Your task to perform on an android device: open chrome privacy settings Image 0: 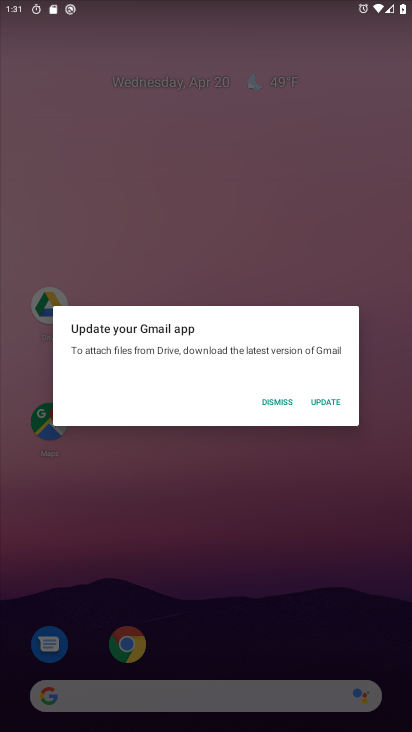
Step 0: click (285, 478)
Your task to perform on an android device: open chrome privacy settings Image 1: 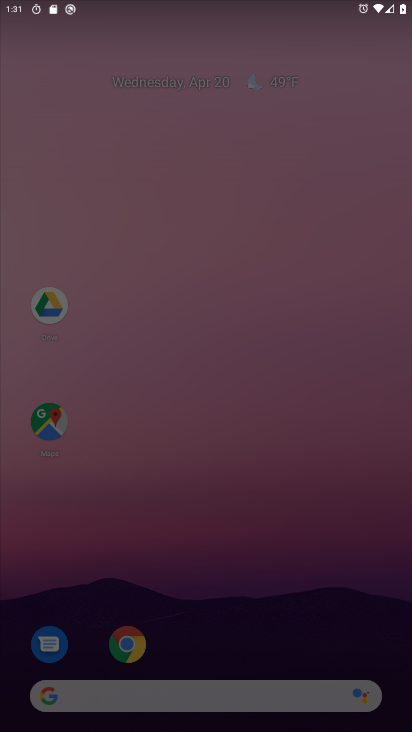
Step 1: click (137, 648)
Your task to perform on an android device: open chrome privacy settings Image 2: 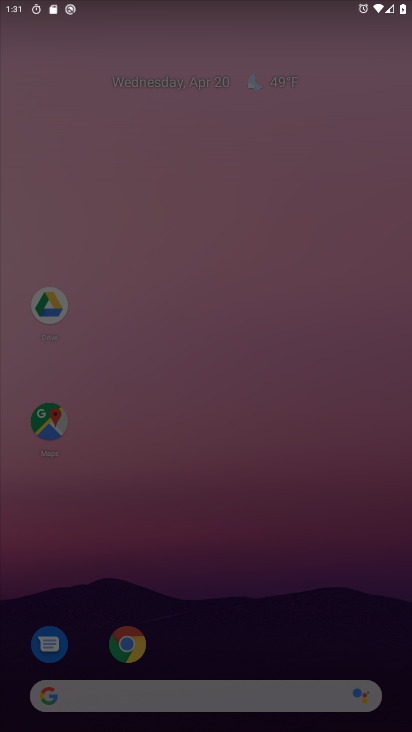
Step 2: press home button
Your task to perform on an android device: open chrome privacy settings Image 3: 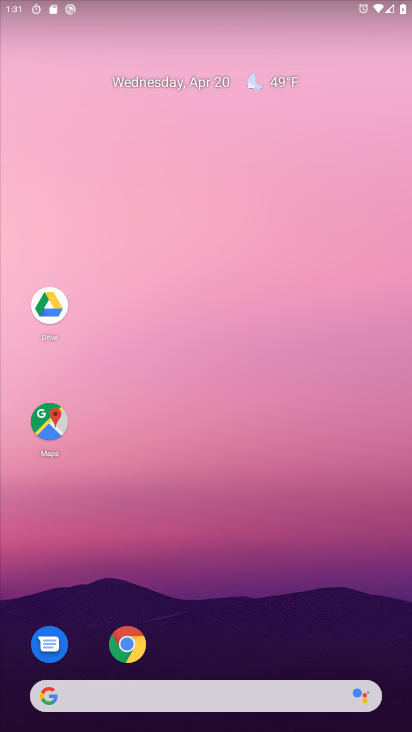
Step 3: click (128, 638)
Your task to perform on an android device: open chrome privacy settings Image 4: 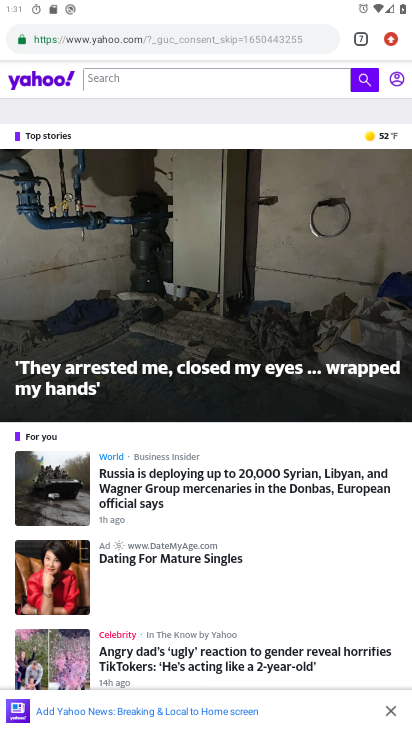
Step 4: click (388, 41)
Your task to perform on an android device: open chrome privacy settings Image 5: 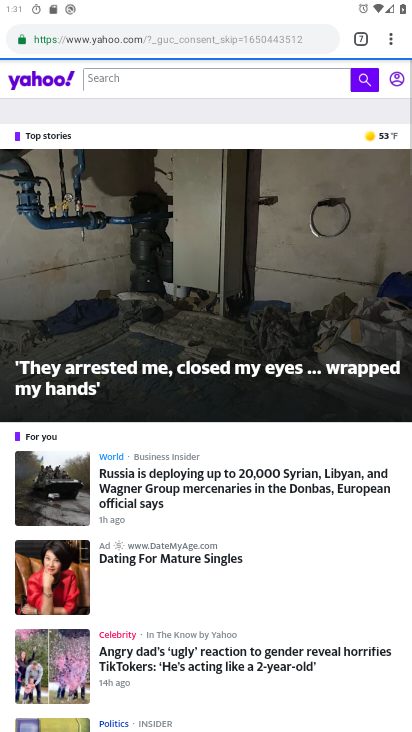
Step 5: click (388, 40)
Your task to perform on an android device: open chrome privacy settings Image 6: 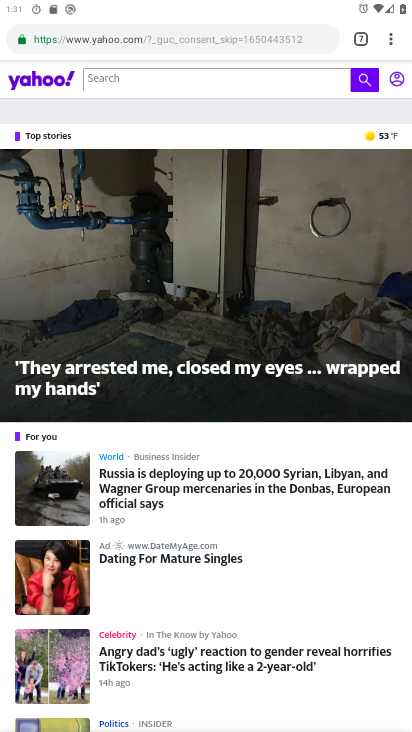
Step 6: click (388, 40)
Your task to perform on an android device: open chrome privacy settings Image 7: 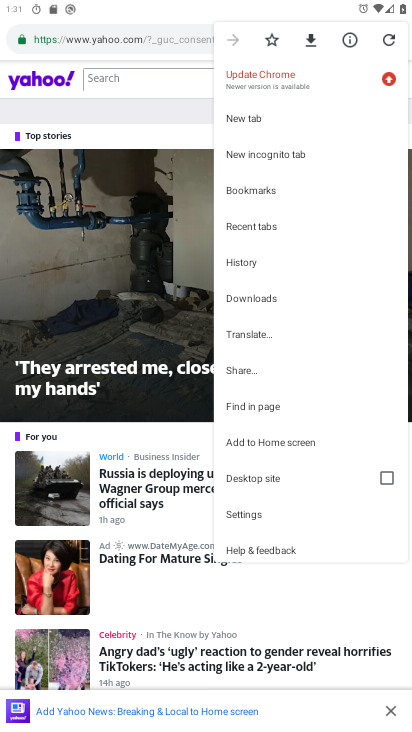
Step 7: click (257, 517)
Your task to perform on an android device: open chrome privacy settings Image 8: 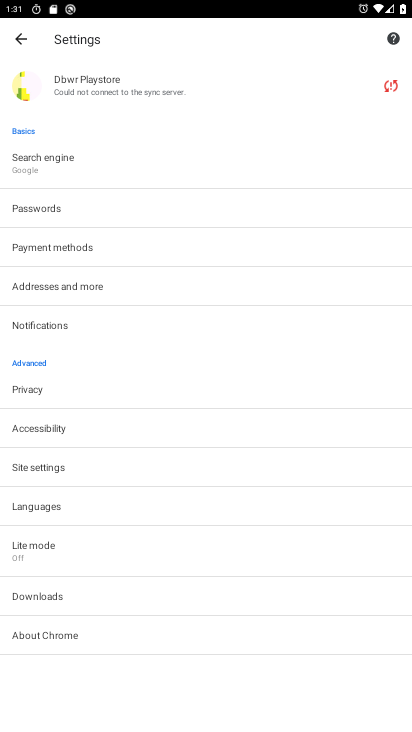
Step 8: click (17, 374)
Your task to perform on an android device: open chrome privacy settings Image 9: 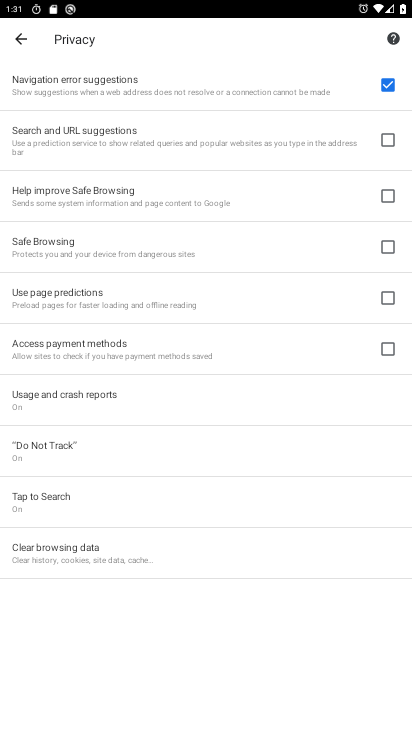
Step 9: task complete